Your task to perform on an android device: Is it going to rain this weekend? Image 0: 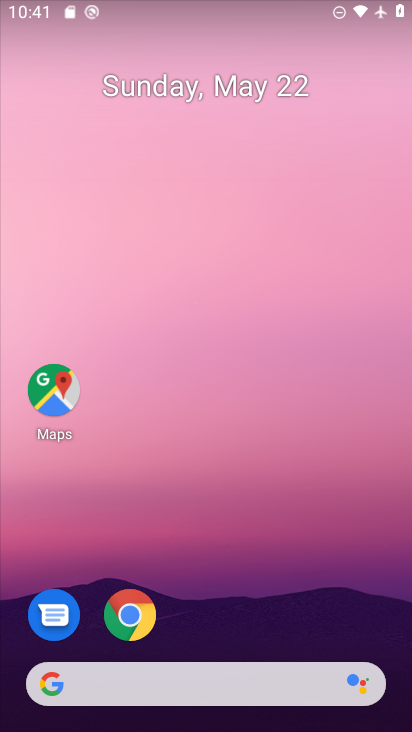
Step 0: drag from (261, 553) to (279, 52)
Your task to perform on an android device: Is it going to rain this weekend? Image 1: 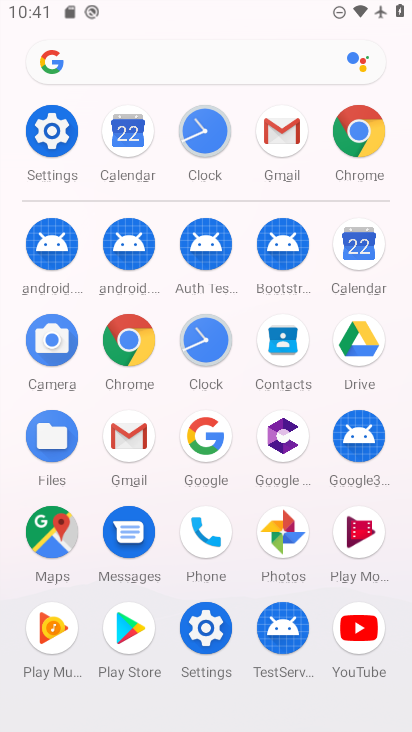
Step 1: click (365, 131)
Your task to perform on an android device: Is it going to rain this weekend? Image 2: 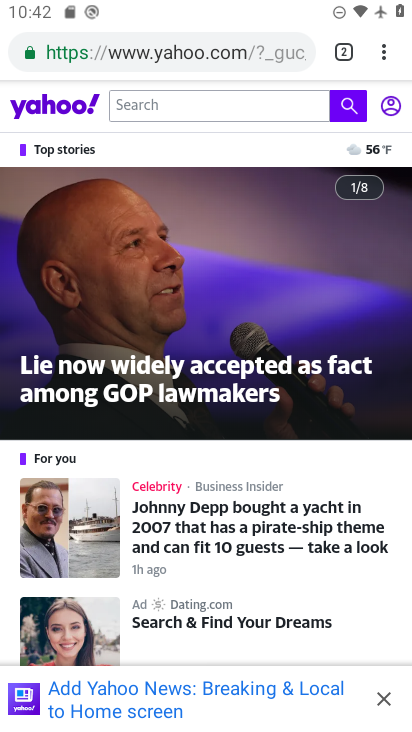
Step 2: click (236, 35)
Your task to perform on an android device: Is it going to rain this weekend? Image 3: 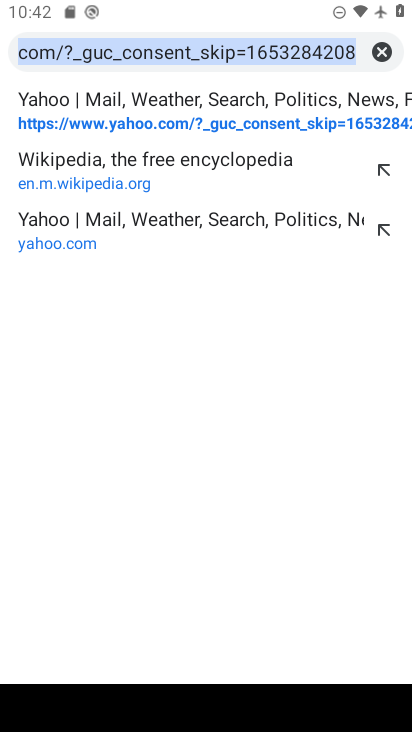
Step 3: type "weather"
Your task to perform on an android device: Is it going to rain this weekend? Image 4: 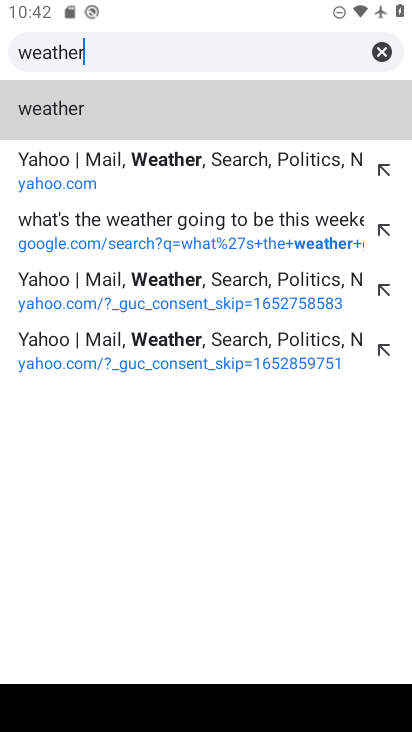
Step 4: click (68, 106)
Your task to perform on an android device: Is it going to rain this weekend? Image 5: 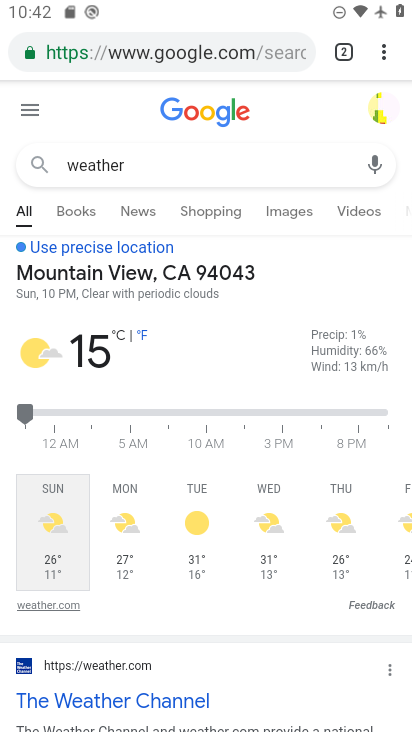
Step 5: drag from (234, 360) to (233, 89)
Your task to perform on an android device: Is it going to rain this weekend? Image 6: 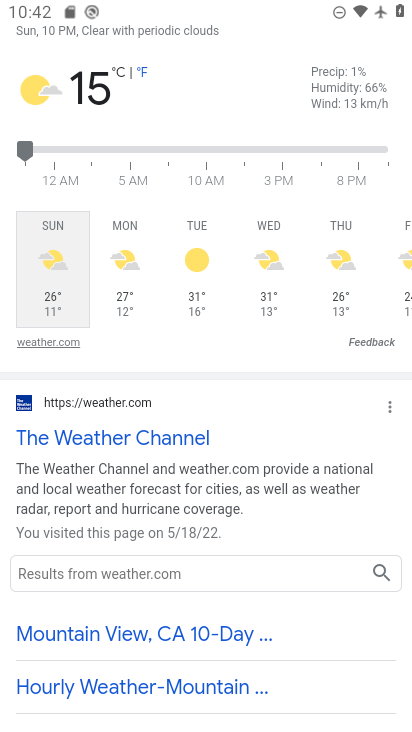
Step 6: drag from (300, 264) to (129, 259)
Your task to perform on an android device: Is it going to rain this weekend? Image 7: 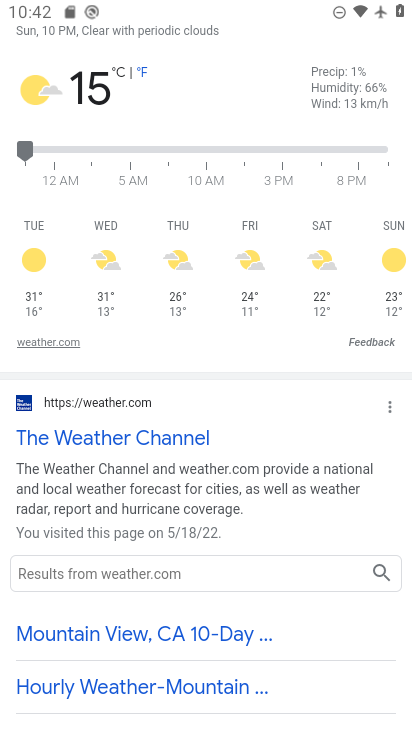
Step 7: click (324, 256)
Your task to perform on an android device: Is it going to rain this weekend? Image 8: 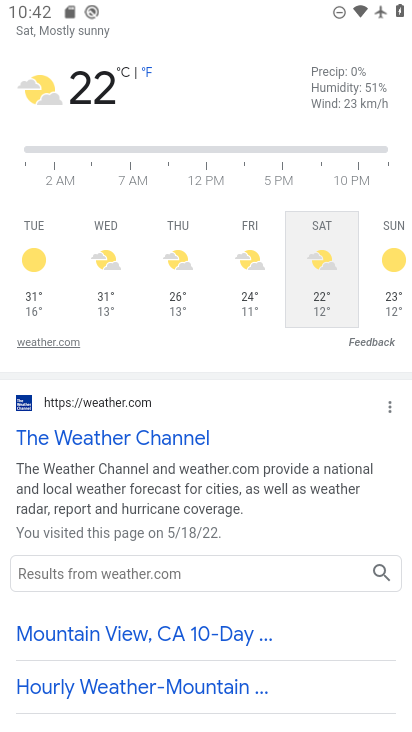
Step 8: task complete